Your task to perform on an android device: Clear the shopping cart on target. Search for "dell alienware" on target, select the first entry, add it to the cart, then select checkout. Image 0: 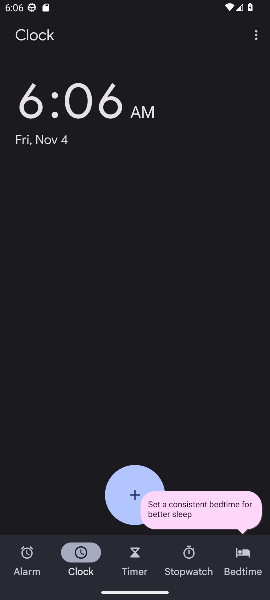
Step 0: press home button
Your task to perform on an android device: Clear the shopping cart on target. Search for "dell alienware" on target, select the first entry, add it to the cart, then select checkout. Image 1: 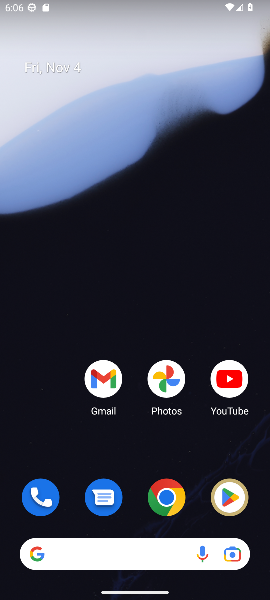
Step 1: click (162, 505)
Your task to perform on an android device: Clear the shopping cart on target. Search for "dell alienware" on target, select the first entry, add it to the cart, then select checkout. Image 2: 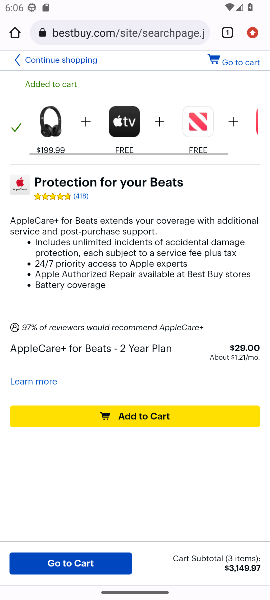
Step 2: click (129, 37)
Your task to perform on an android device: Clear the shopping cart on target. Search for "dell alienware" on target, select the first entry, add it to the cart, then select checkout. Image 3: 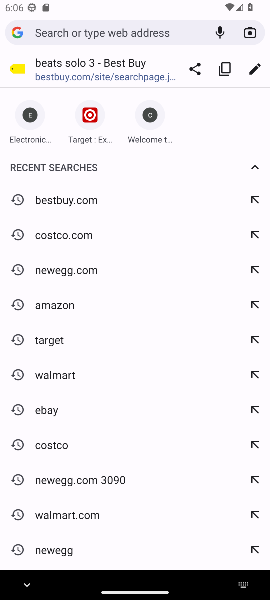
Step 3: click (56, 341)
Your task to perform on an android device: Clear the shopping cart on target. Search for "dell alienware" on target, select the first entry, add it to the cart, then select checkout. Image 4: 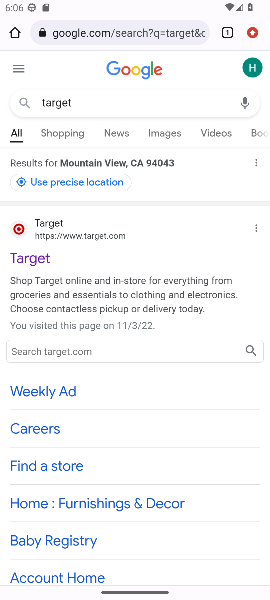
Step 4: click (34, 261)
Your task to perform on an android device: Clear the shopping cart on target. Search for "dell alienware" on target, select the first entry, add it to the cart, then select checkout. Image 5: 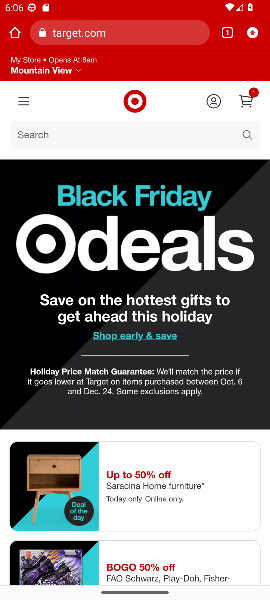
Step 5: click (246, 100)
Your task to perform on an android device: Clear the shopping cart on target. Search for "dell alienware" on target, select the first entry, add it to the cart, then select checkout. Image 6: 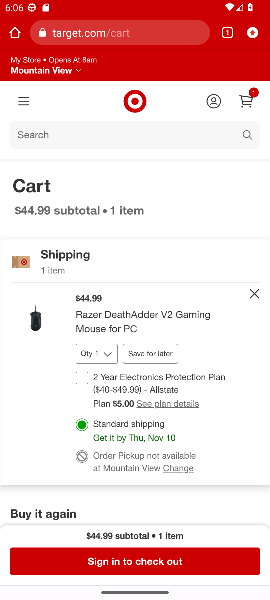
Step 6: click (258, 295)
Your task to perform on an android device: Clear the shopping cart on target. Search for "dell alienware" on target, select the first entry, add it to the cart, then select checkout. Image 7: 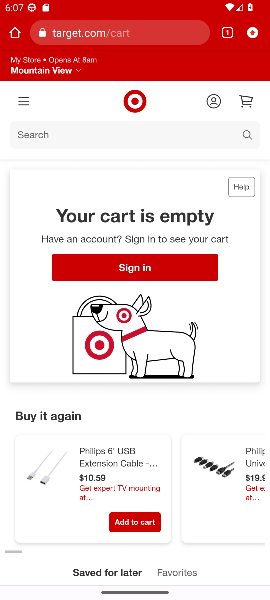
Step 7: click (246, 136)
Your task to perform on an android device: Clear the shopping cart on target. Search for "dell alienware" on target, select the first entry, add it to the cart, then select checkout. Image 8: 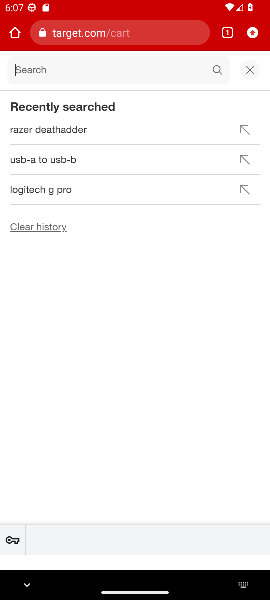
Step 8: type "dell alienware"
Your task to perform on an android device: Clear the shopping cart on target. Search for "dell alienware" on target, select the first entry, add it to the cart, then select checkout. Image 9: 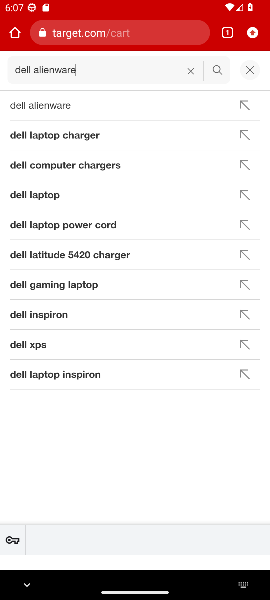
Step 9: click (47, 105)
Your task to perform on an android device: Clear the shopping cart on target. Search for "dell alienware" on target, select the first entry, add it to the cart, then select checkout. Image 10: 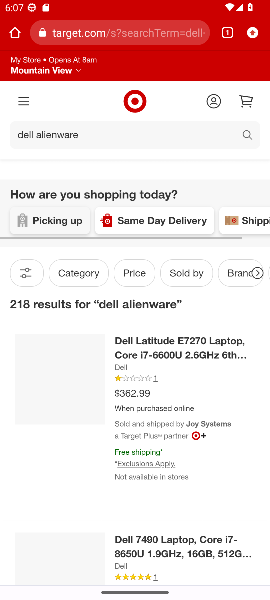
Step 10: task complete